Your task to perform on an android device: turn on location history Image 0: 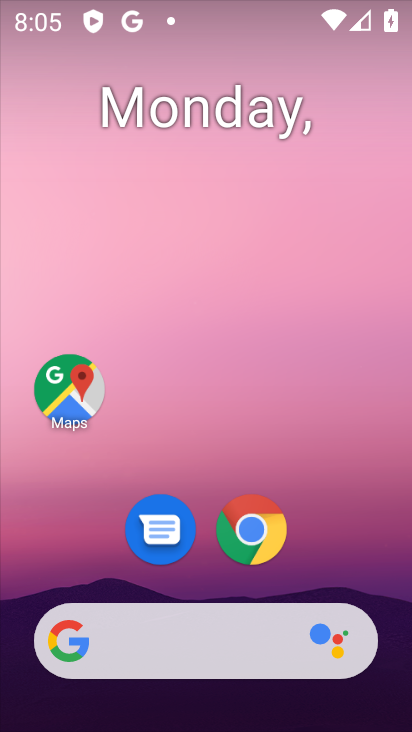
Step 0: press home button
Your task to perform on an android device: turn on location history Image 1: 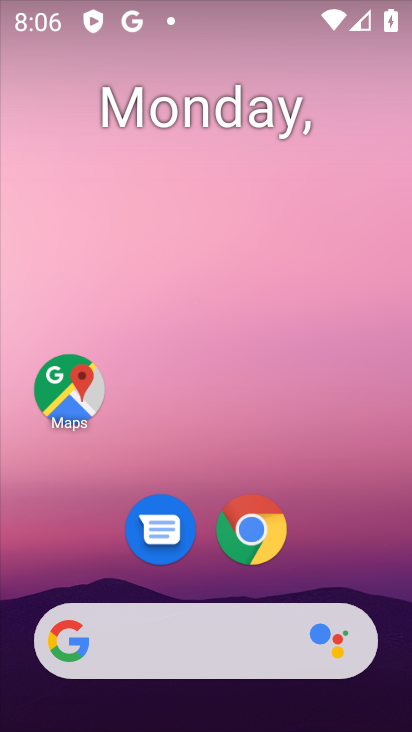
Step 1: drag from (286, 687) to (311, 302)
Your task to perform on an android device: turn on location history Image 2: 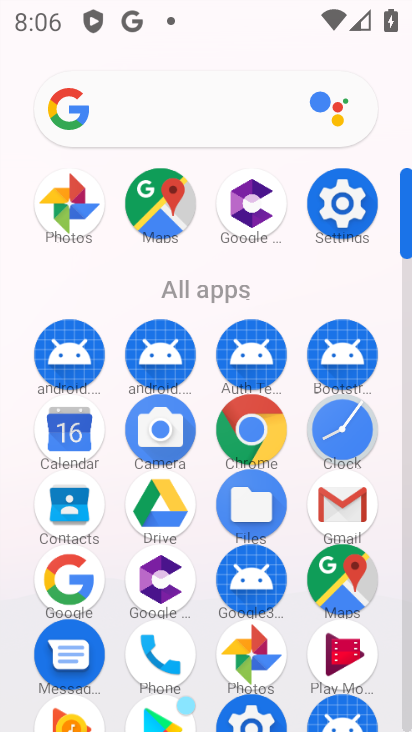
Step 2: click (350, 191)
Your task to perform on an android device: turn on location history Image 3: 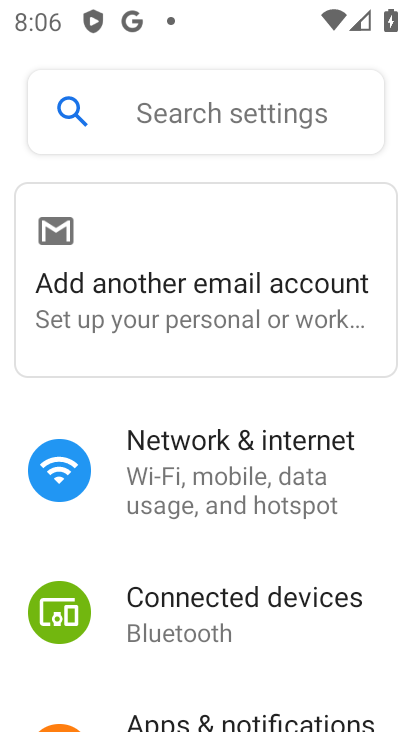
Step 3: click (219, 105)
Your task to perform on an android device: turn on location history Image 4: 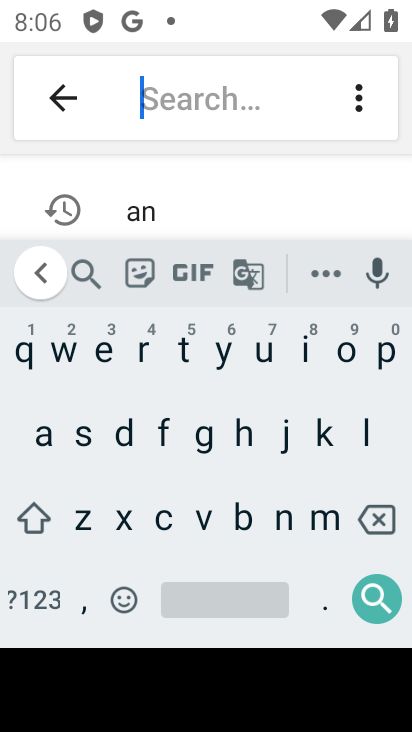
Step 4: click (365, 439)
Your task to perform on an android device: turn on location history Image 5: 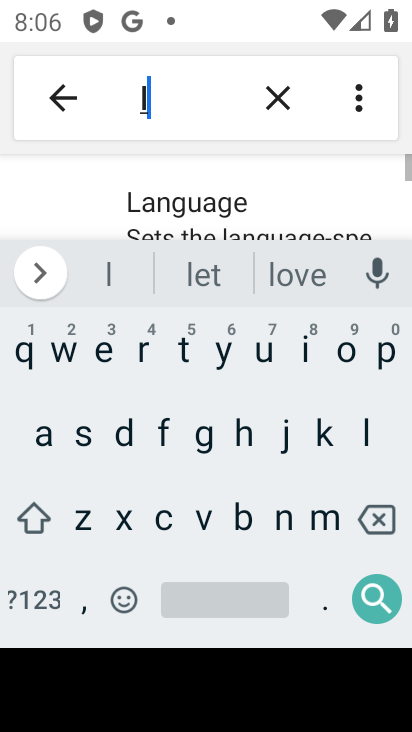
Step 5: click (341, 351)
Your task to perform on an android device: turn on location history Image 6: 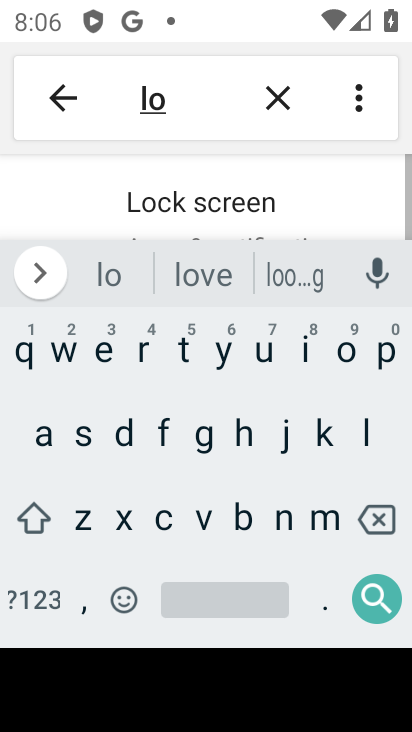
Step 6: click (159, 514)
Your task to perform on an android device: turn on location history Image 7: 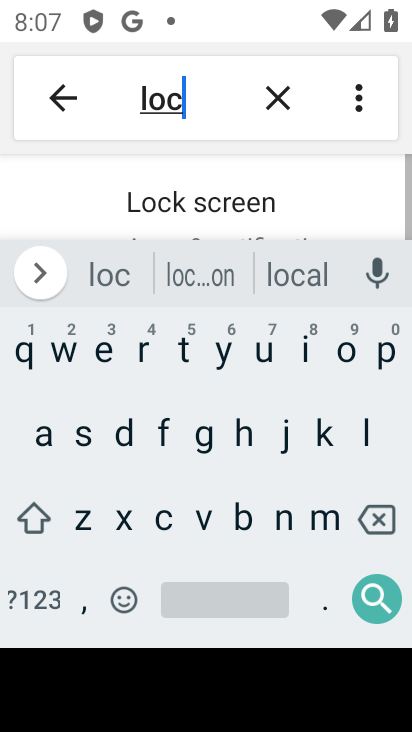
Step 7: click (48, 435)
Your task to perform on an android device: turn on location history Image 8: 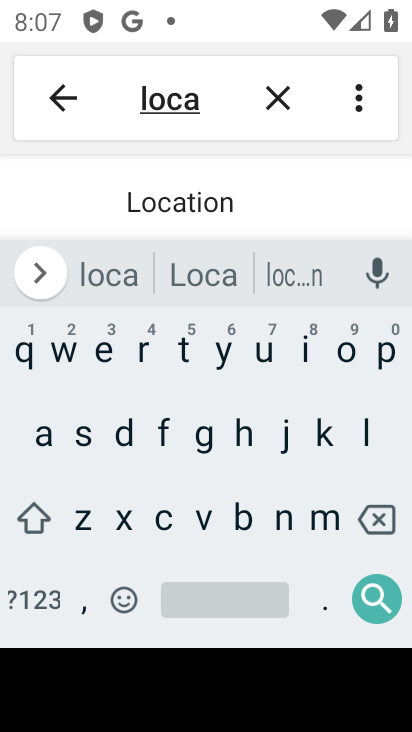
Step 8: press back button
Your task to perform on an android device: turn on location history Image 9: 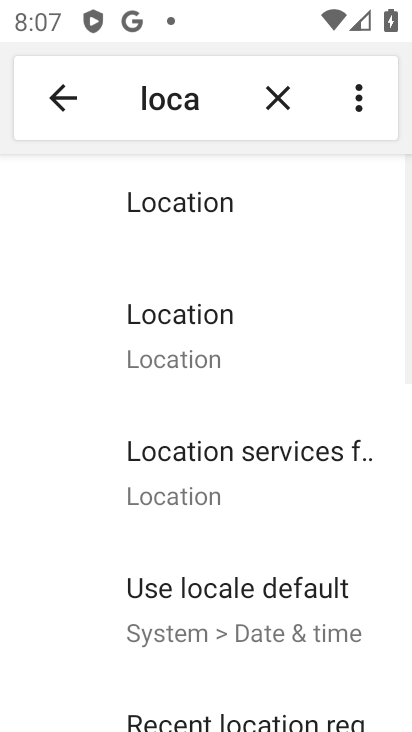
Step 9: click (218, 339)
Your task to perform on an android device: turn on location history Image 10: 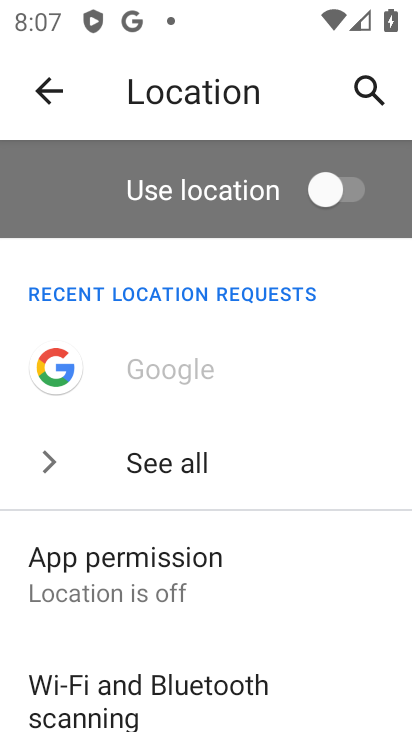
Step 10: drag from (201, 568) to (209, 299)
Your task to perform on an android device: turn on location history Image 11: 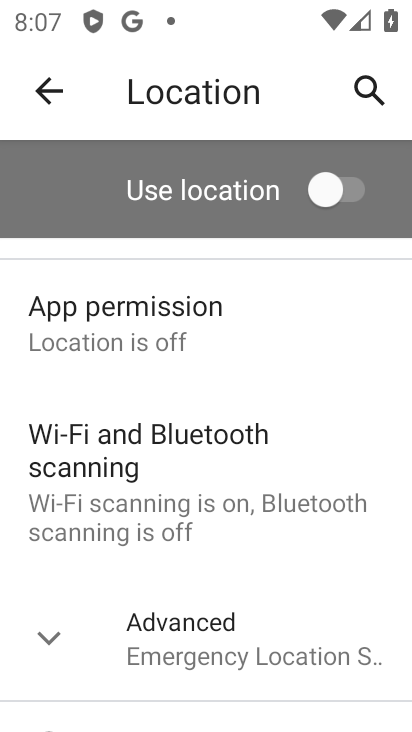
Step 11: click (58, 648)
Your task to perform on an android device: turn on location history Image 12: 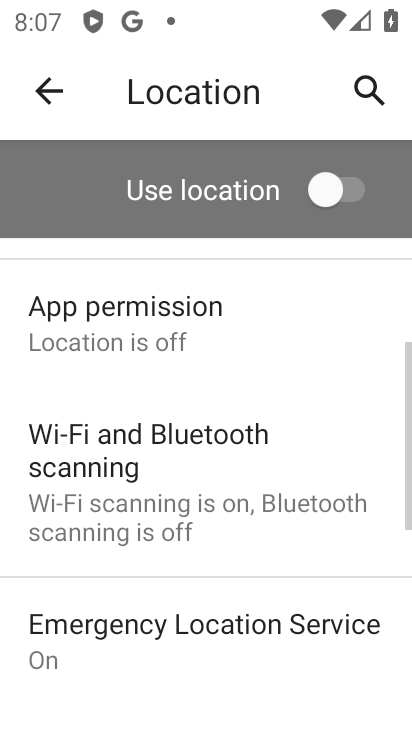
Step 12: drag from (236, 654) to (255, 381)
Your task to perform on an android device: turn on location history Image 13: 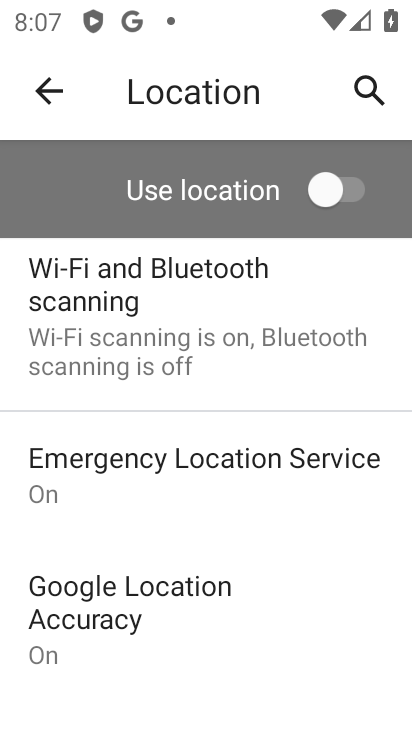
Step 13: drag from (153, 582) to (172, 393)
Your task to perform on an android device: turn on location history Image 14: 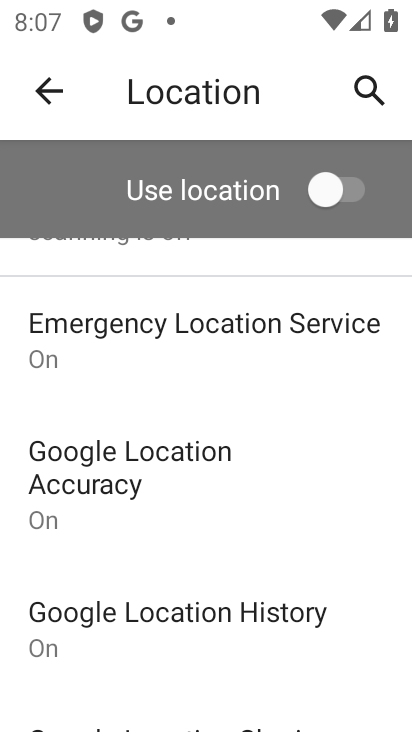
Step 14: click (113, 631)
Your task to perform on an android device: turn on location history Image 15: 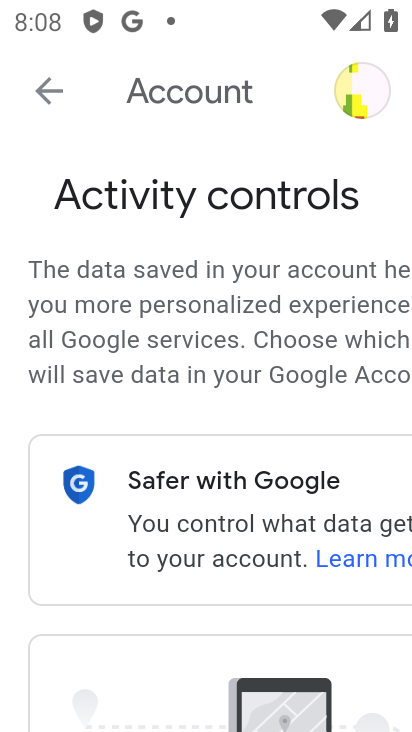
Step 15: task complete